Your task to perform on an android device: turn off data saver in the chrome app Image 0: 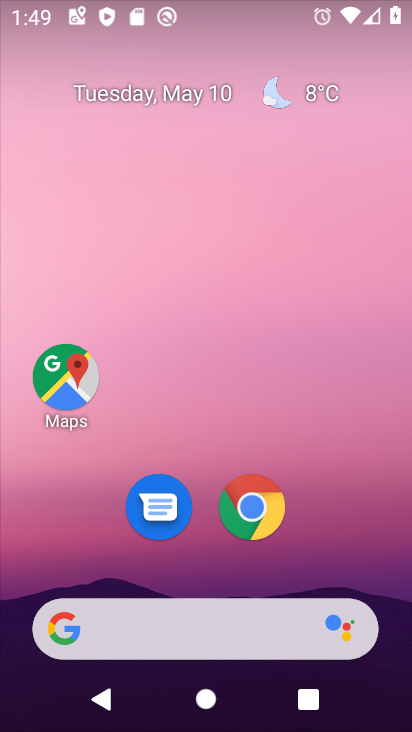
Step 0: click (261, 506)
Your task to perform on an android device: turn off data saver in the chrome app Image 1: 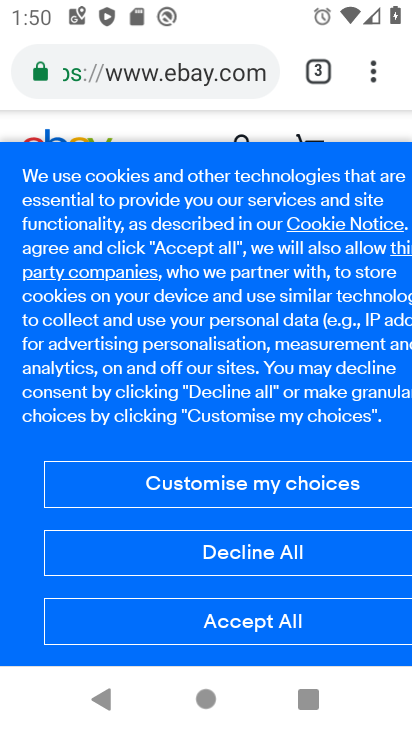
Step 1: click (375, 79)
Your task to perform on an android device: turn off data saver in the chrome app Image 2: 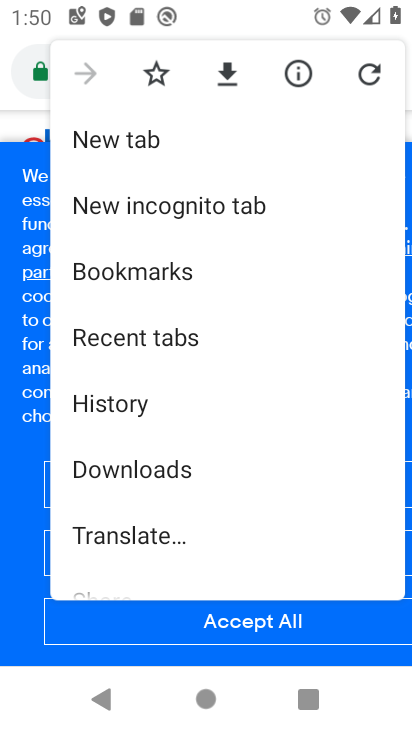
Step 2: drag from (156, 553) to (153, 89)
Your task to perform on an android device: turn off data saver in the chrome app Image 3: 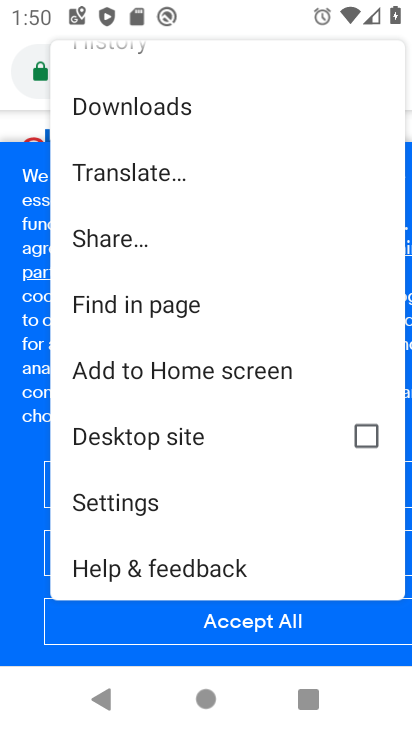
Step 3: click (113, 499)
Your task to perform on an android device: turn off data saver in the chrome app Image 4: 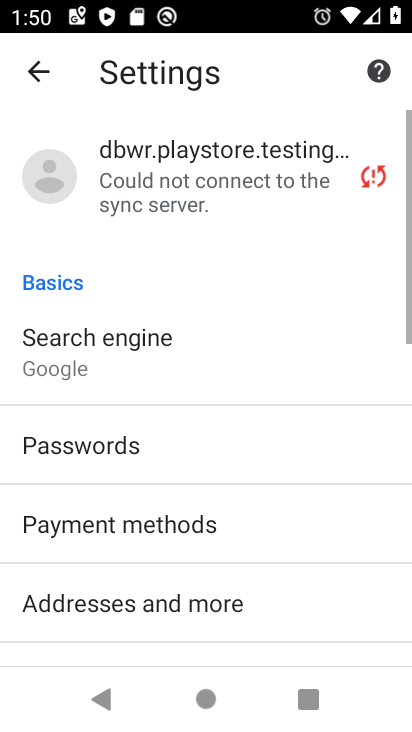
Step 4: drag from (136, 623) to (138, 336)
Your task to perform on an android device: turn off data saver in the chrome app Image 5: 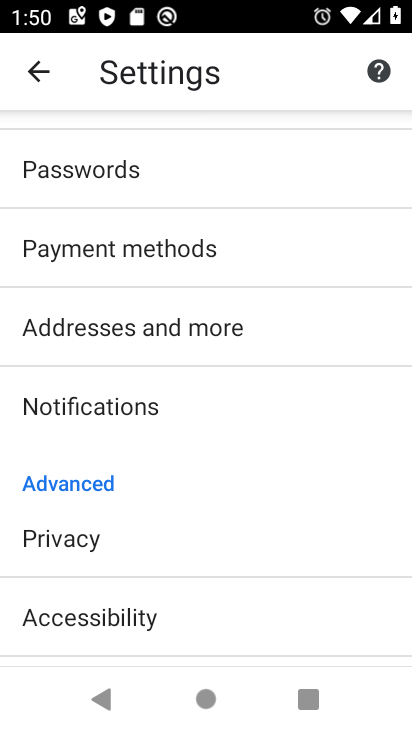
Step 5: drag from (123, 598) to (135, 265)
Your task to perform on an android device: turn off data saver in the chrome app Image 6: 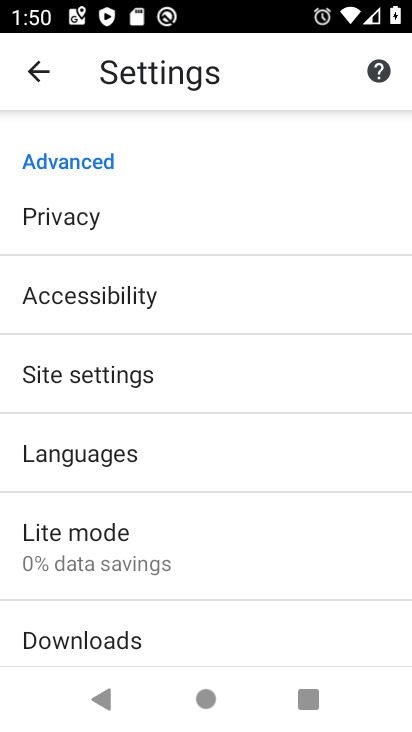
Step 6: drag from (115, 587) to (123, 434)
Your task to perform on an android device: turn off data saver in the chrome app Image 7: 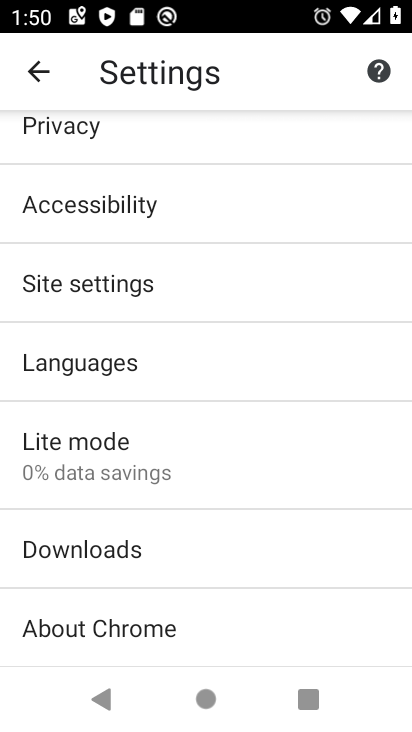
Step 7: click (86, 460)
Your task to perform on an android device: turn off data saver in the chrome app Image 8: 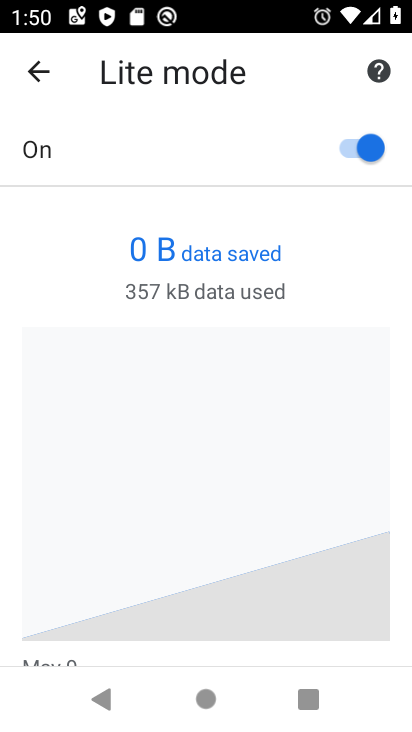
Step 8: click (345, 146)
Your task to perform on an android device: turn off data saver in the chrome app Image 9: 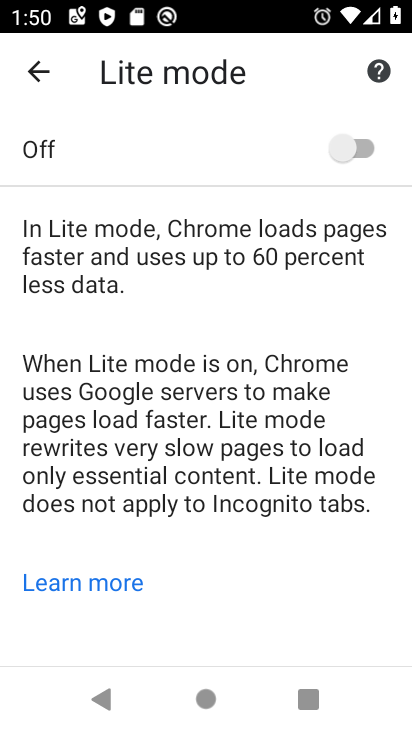
Step 9: task complete